Your task to perform on an android device: Do I have any events today? Image 0: 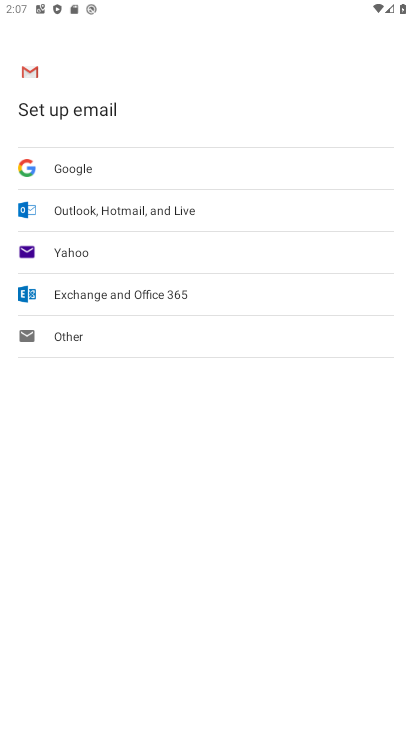
Step 0: press home button
Your task to perform on an android device: Do I have any events today? Image 1: 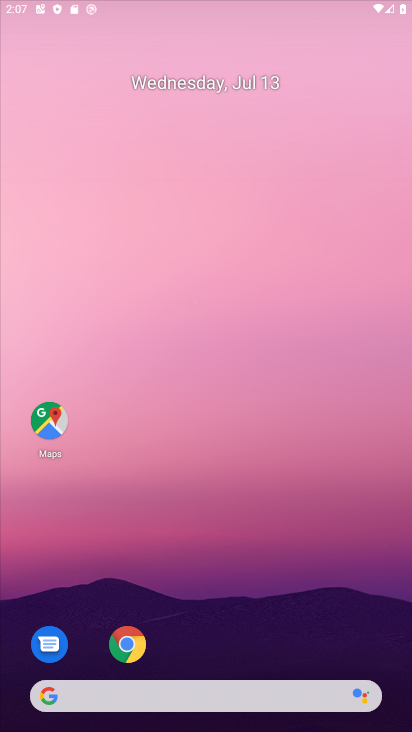
Step 1: drag from (211, 593) to (214, 0)
Your task to perform on an android device: Do I have any events today? Image 2: 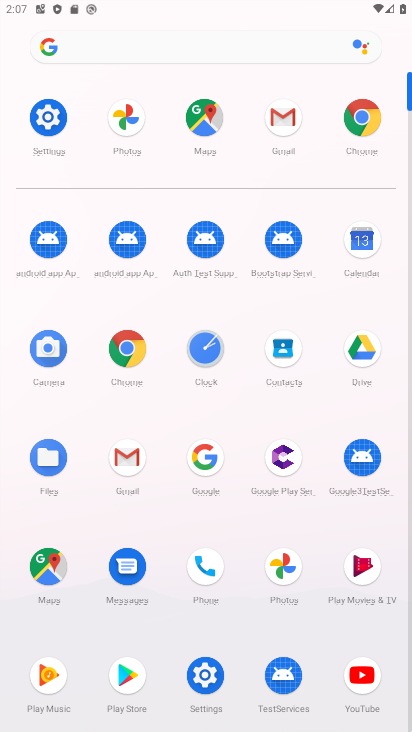
Step 2: click (366, 234)
Your task to perform on an android device: Do I have any events today? Image 3: 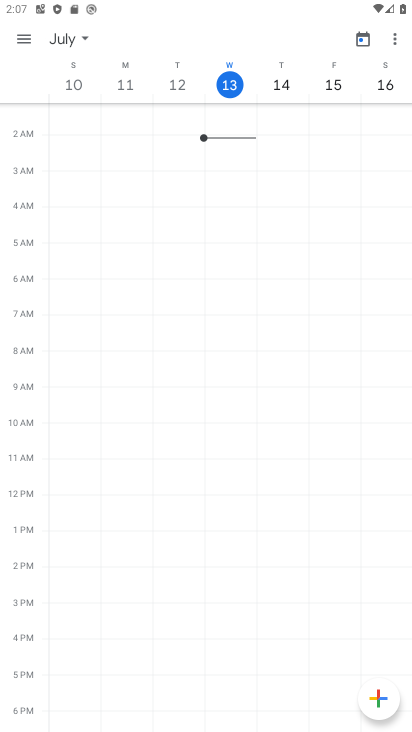
Step 3: task complete